Your task to perform on an android device: turn pop-ups off in chrome Image 0: 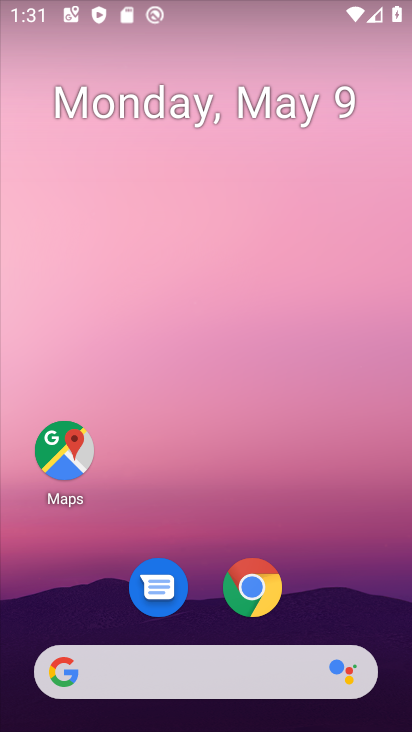
Step 0: click (263, 606)
Your task to perform on an android device: turn pop-ups off in chrome Image 1: 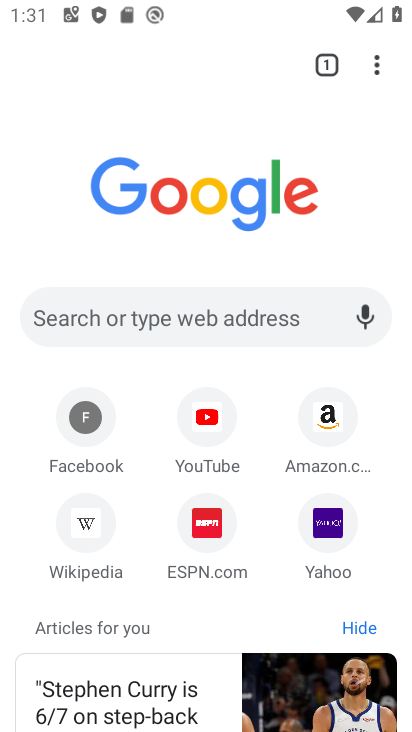
Step 1: drag from (382, 66) to (261, 527)
Your task to perform on an android device: turn pop-ups off in chrome Image 2: 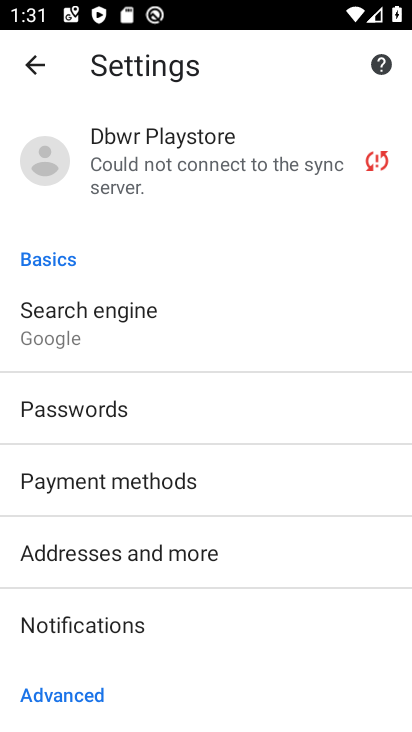
Step 2: drag from (205, 628) to (302, 297)
Your task to perform on an android device: turn pop-ups off in chrome Image 3: 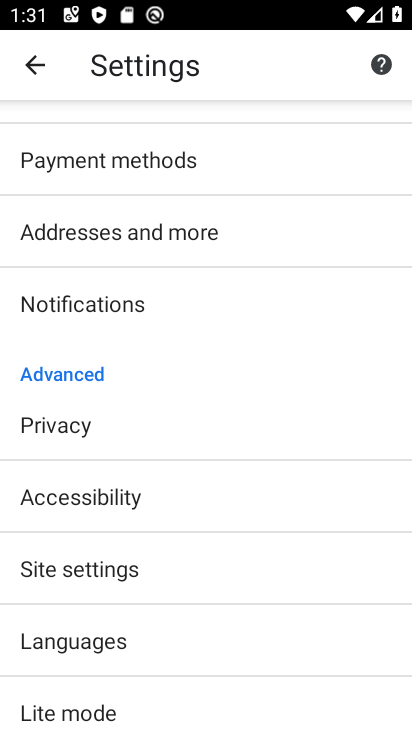
Step 3: click (227, 563)
Your task to perform on an android device: turn pop-ups off in chrome Image 4: 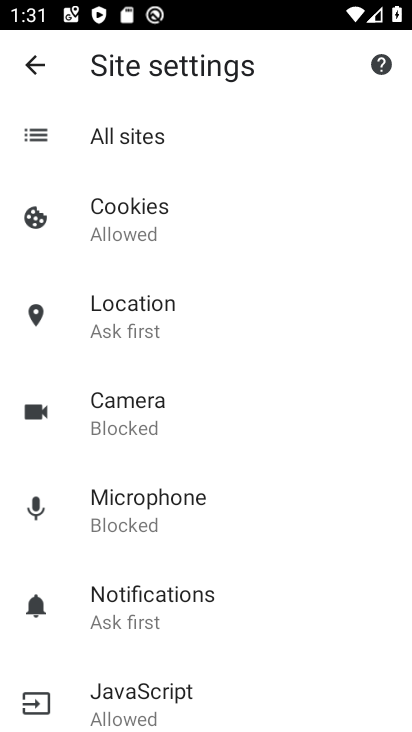
Step 4: drag from (235, 663) to (323, 376)
Your task to perform on an android device: turn pop-ups off in chrome Image 5: 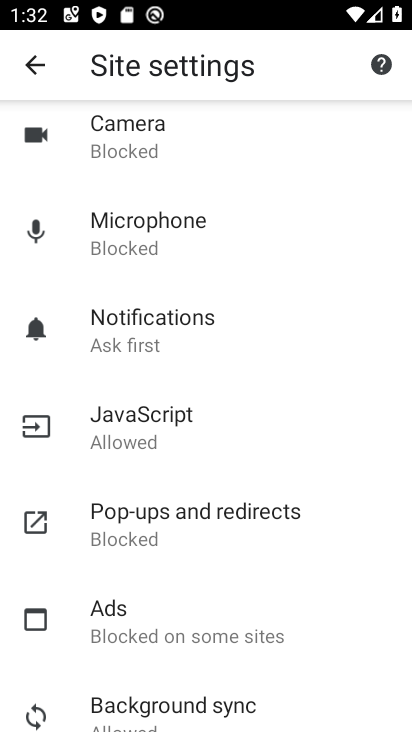
Step 5: click (272, 524)
Your task to perform on an android device: turn pop-ups off in chrome Image 6: 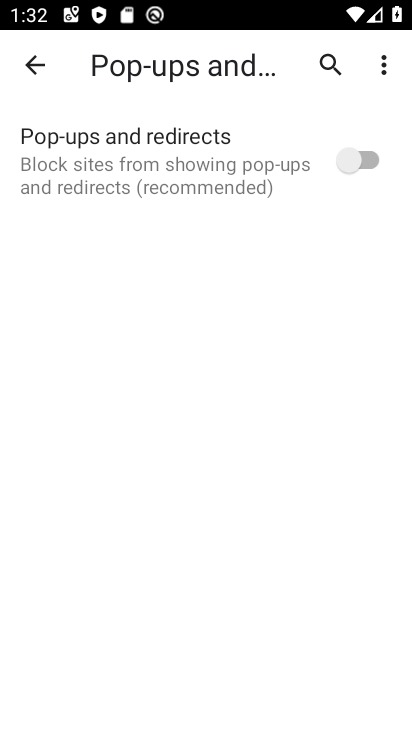
Step 6: task complete